Your task to perform on an android device: turn off translation in the chrome app Image 0: 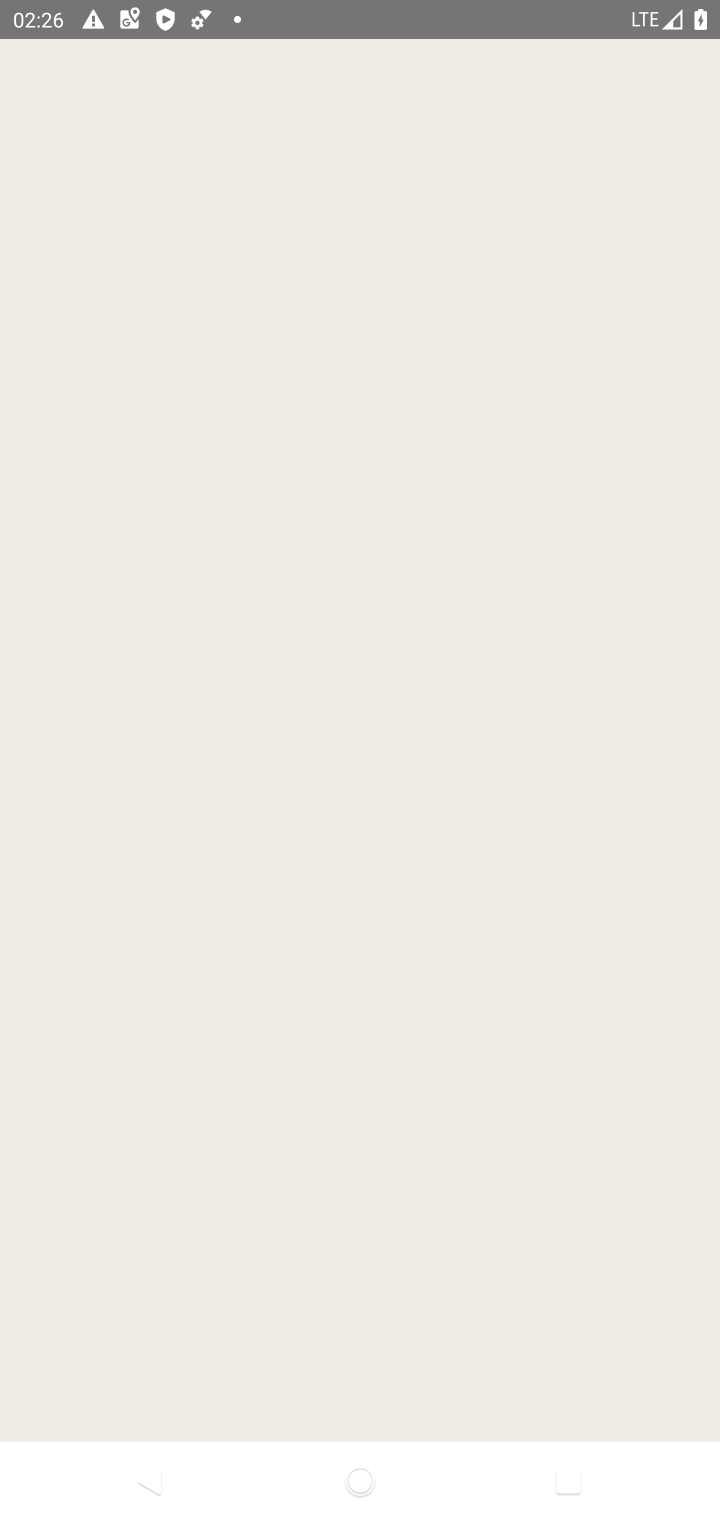
Step 0: press home button
Your task to perform on an android device: turn off translation in the chrome app Image 1: 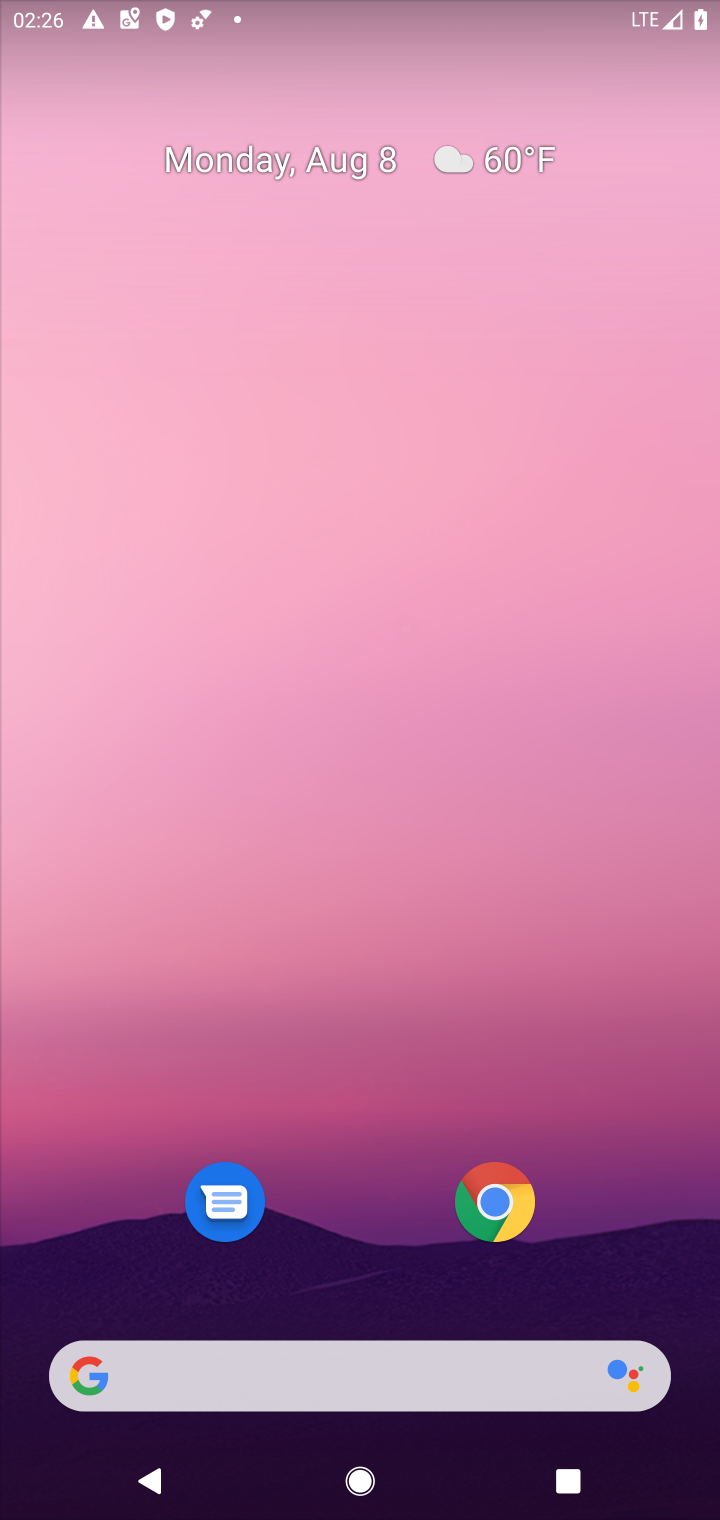
Step 1: click (492, 1204)
Your task to perform on an android device: turn off translation in the chrome app Image 2: 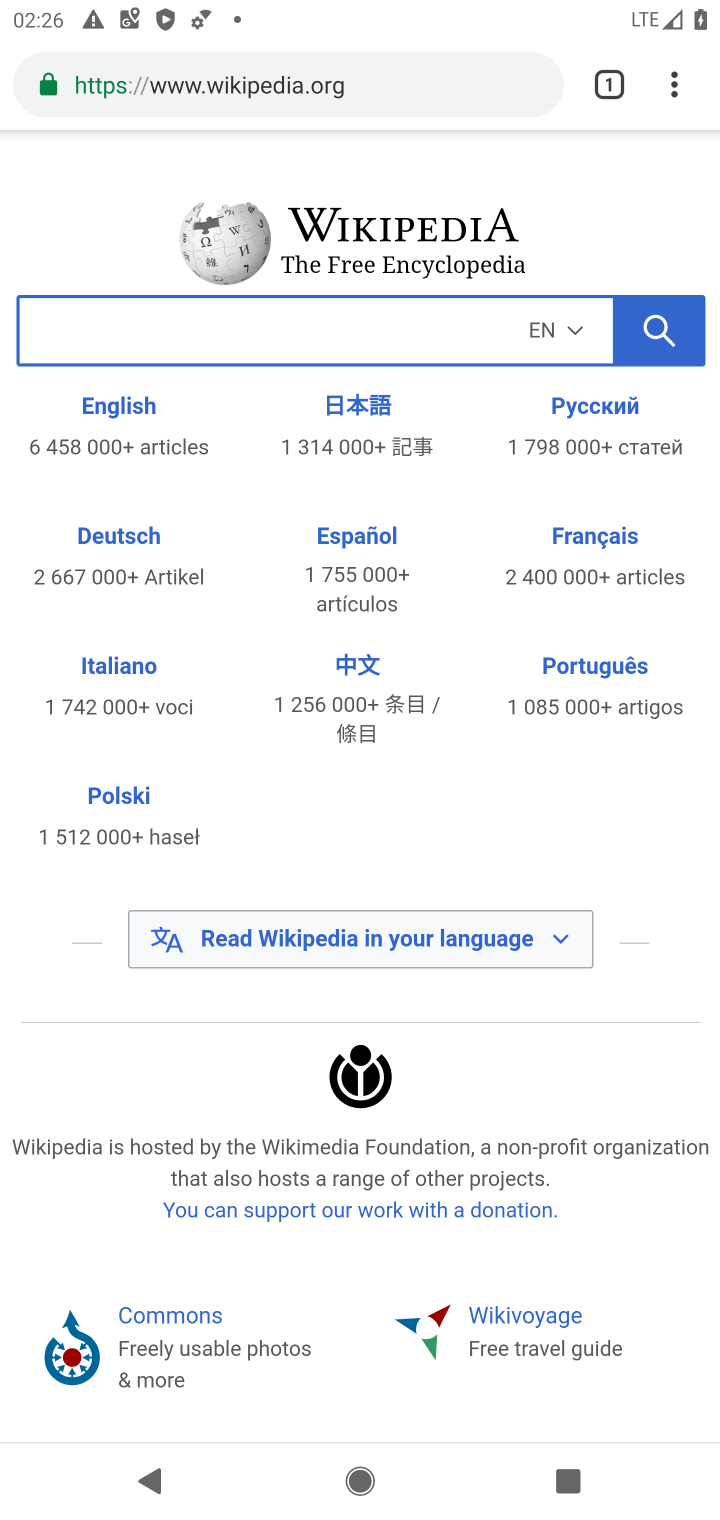
Step 2: click (673, 77)
Your task to perform on an android device: turn off translation in the chrome app Image 3: 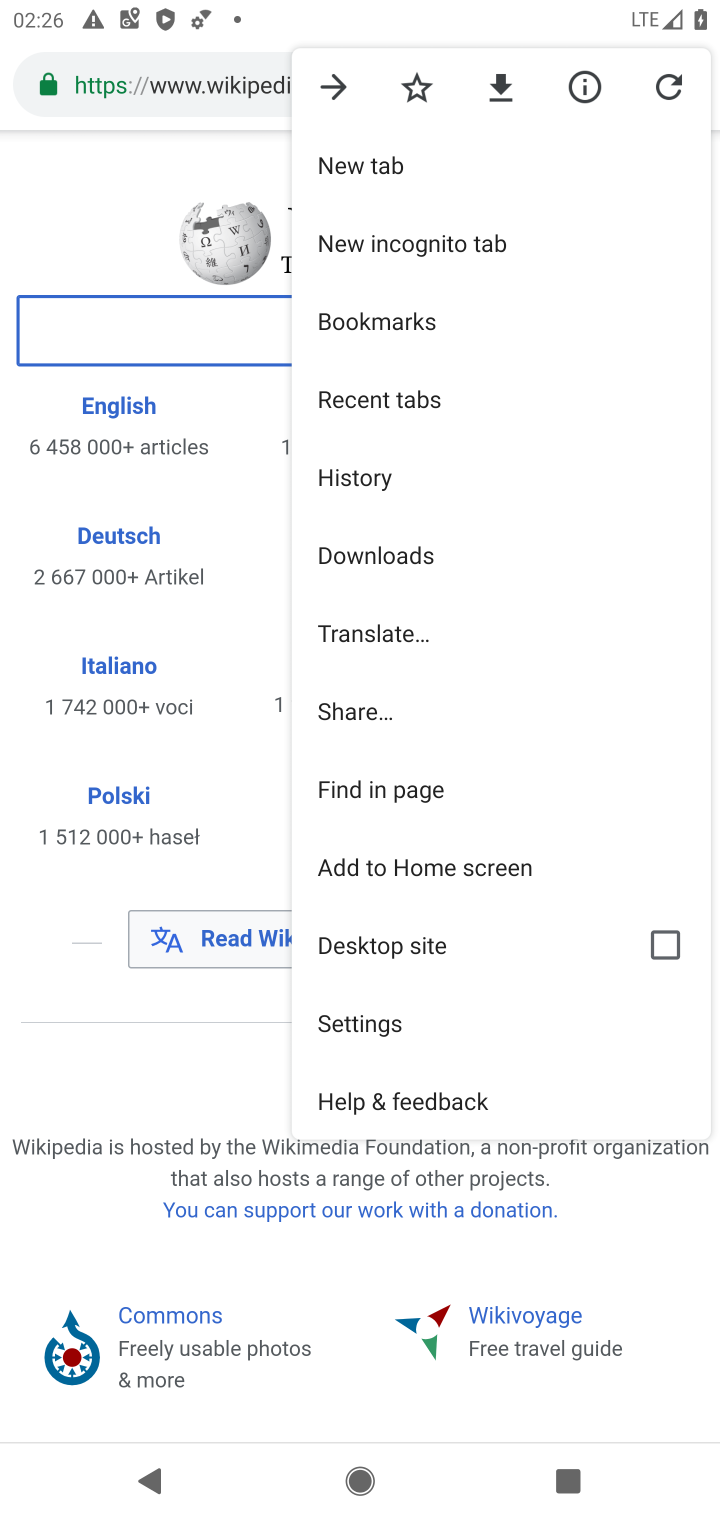
Step 3: click (356, 1021)
Your task to perform on an android device: turn off translation in the chrome app Image 4: 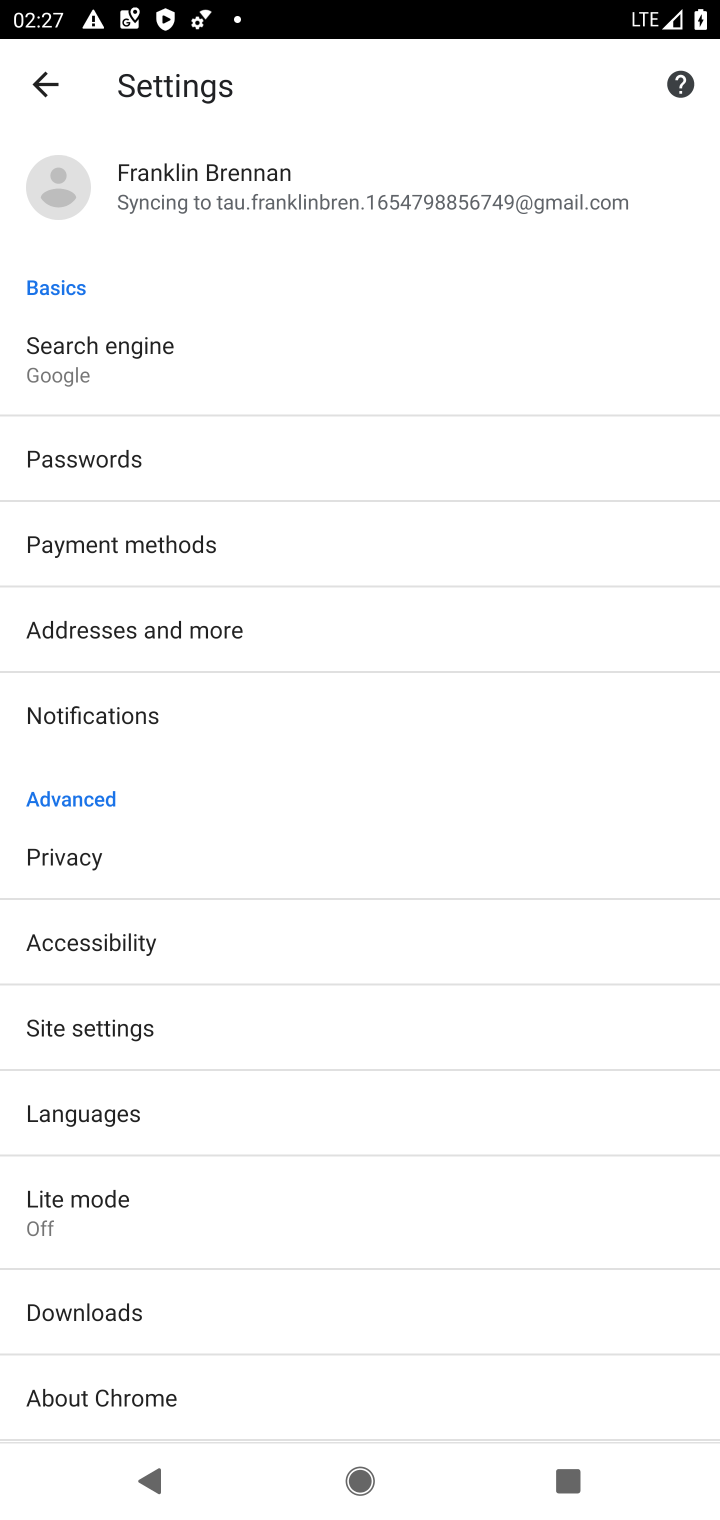
Step 4: click (115, 1118)
Your task to perform on an android device: turn off translation in the chrome app Image 5: 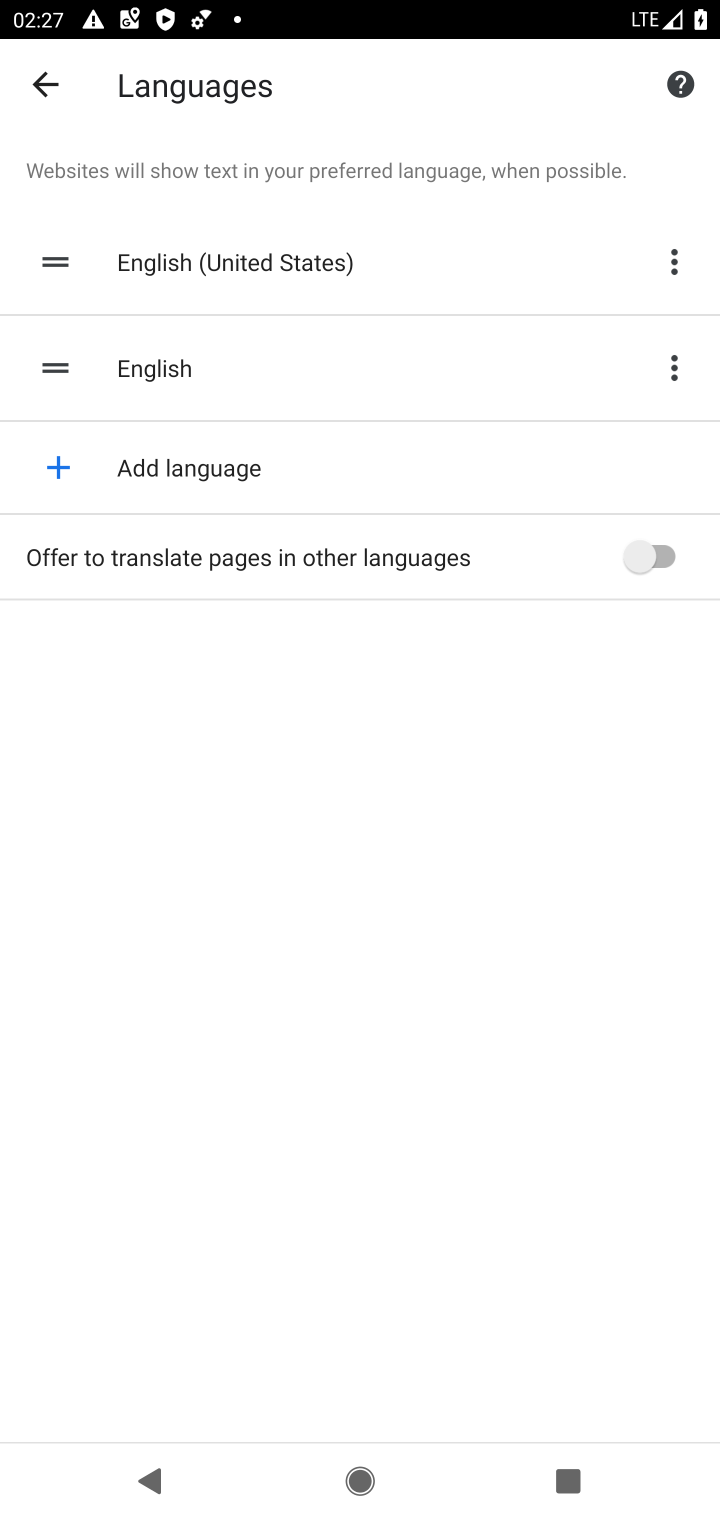
Step 5: task complete